Your task to perform on an android device: Open Chrome and go to settings Image 0: 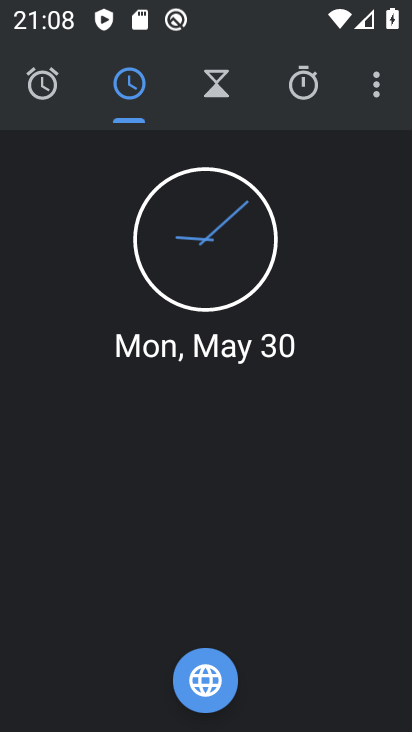
Step 0: press home button
Your task to perform on an android device: Open Chrome and go to settings Image 1: 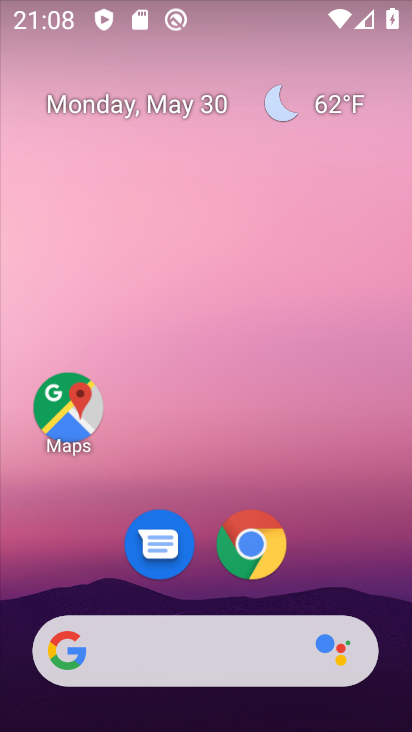
Step 1: click (248, 546)
Your task to perform on an android device: Open Chrome and go to settings Image 2: 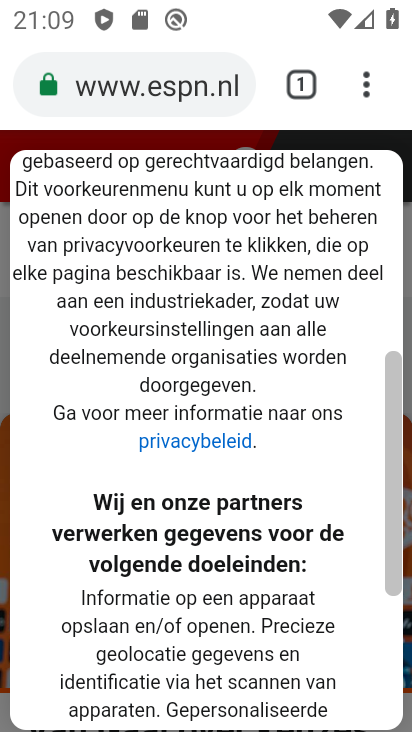
Step 2: click (367, 87)
Your task to perform on an android device: Open Chrome and go to settings Image 3: 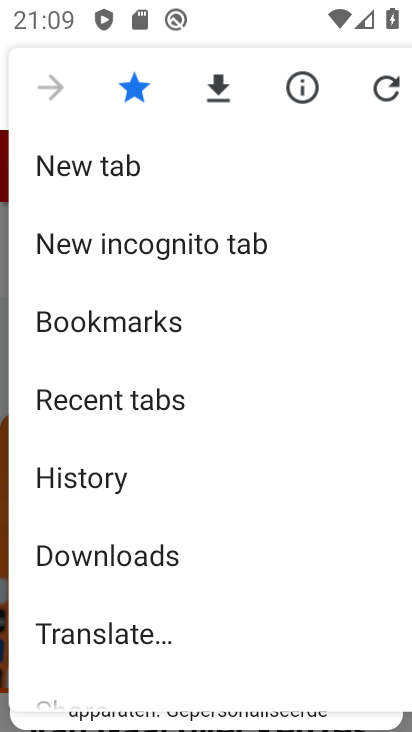
Step 3: drag from (150, 506) to (195, 419)
Your task to perform on an android device: Open Chrome and go to settings Image 4: 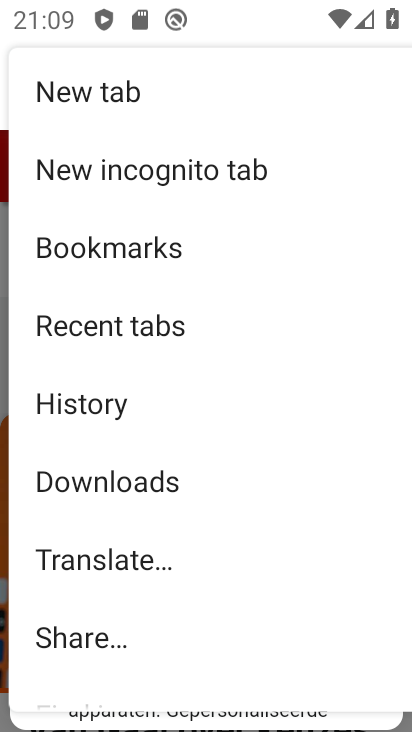
Step 4: drag from (134, 522) to (218, 437)
Your task to perform on an android device: Open Chrome and go to settings Image 5: 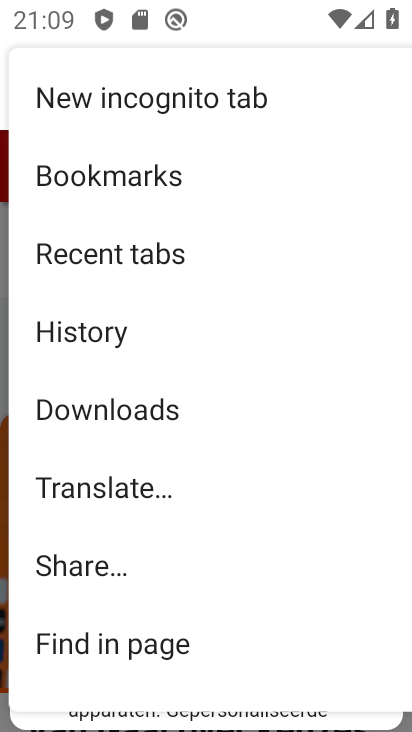
Step 5: drag from (139, 526) to (209, 441)
Your task to perform on an android device: Open Chrome and go to settings Image 6: 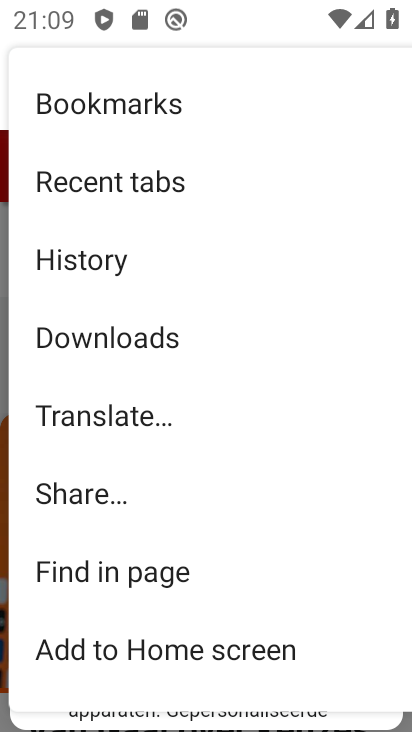
Step 6: drag from (127, 531) to (210, 444)
Your task to perform on an android device: Open Chrome and go to settings Image 7: 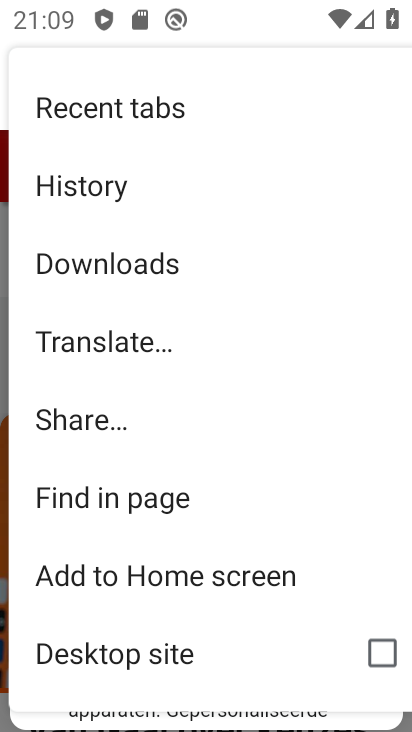
Step 7: drag from (163, 505) to (222, 443)
Your task to perform on an android device: Open Chrome and go to settings Image 8: 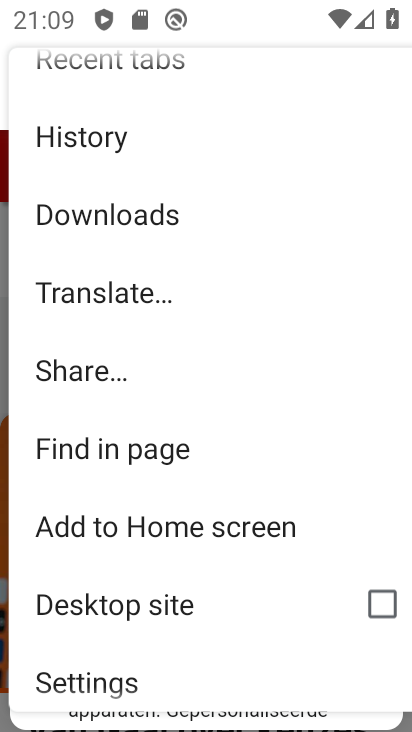
Step 8: drag from (151, 555) to (262, 430)
Your task to perform on an android device: Open Chrome and go to settings Image 9: 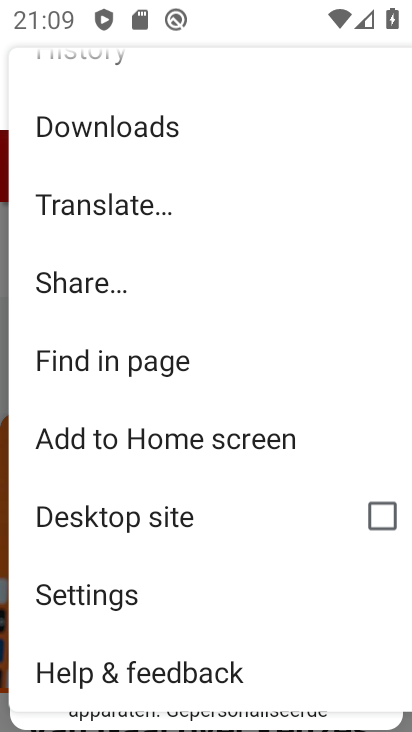
Step 9: click (102, 600)
Your task to perform on an android device: Open Chrome and go to settings Image 10: 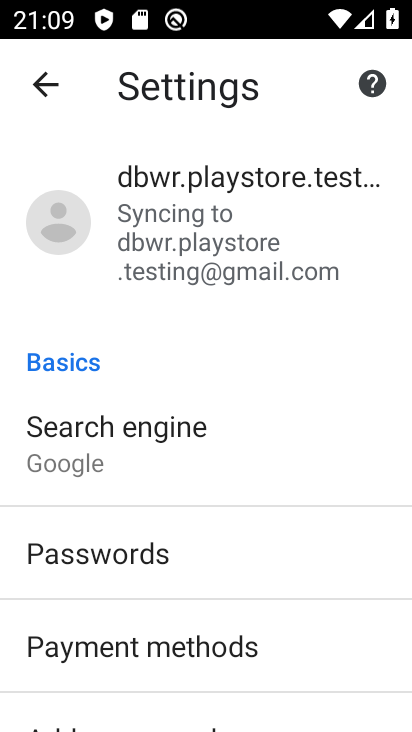
Step 10: task complete